Your task to perform on an android device: Go to display settings Image 0: 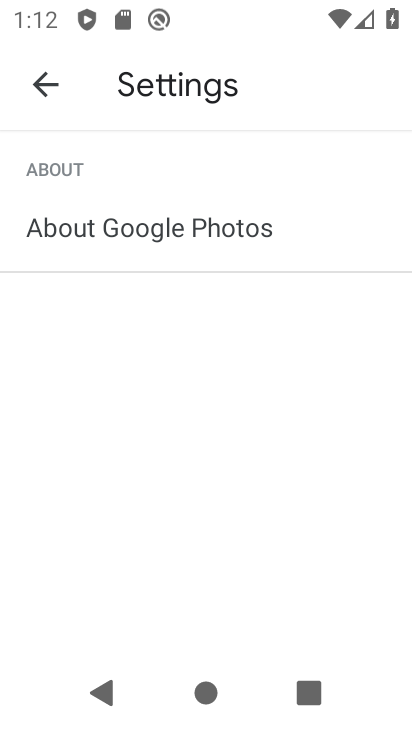
Step 0: press home button
Your task to perform on an android device: Go to display settings Image 1: 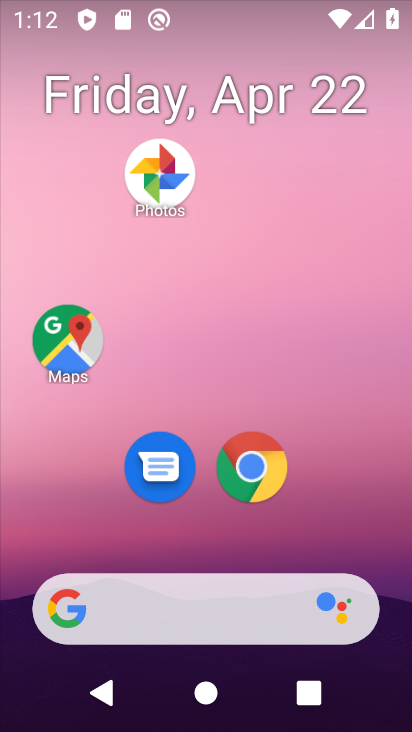
Step 1: drag from (213, 547) to (265, 44)
Your task to perform on an android device: Go to display settings Image 2: 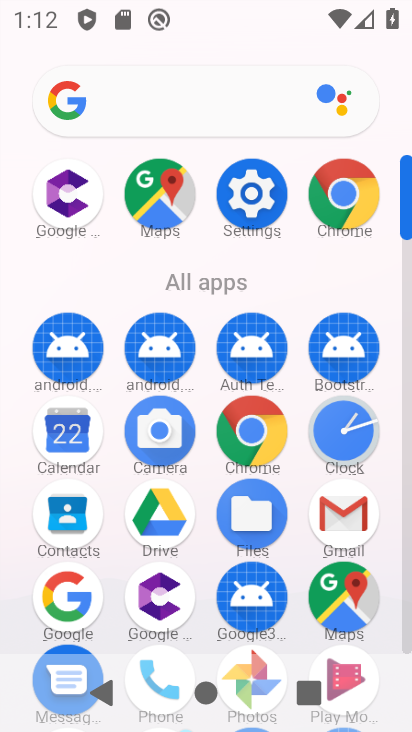
Step 2: click (246, 184)
Your task to perform on an android device: Go to display settings Image 3: 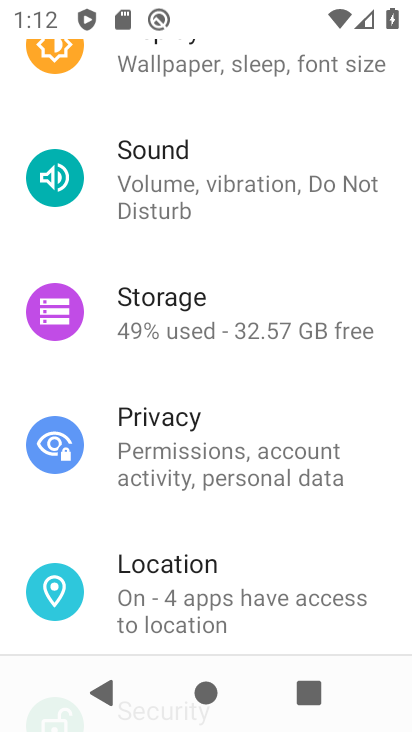
Step 3: click (177, 69)
Your task to perform on an android device: Go to display settings Image 4: 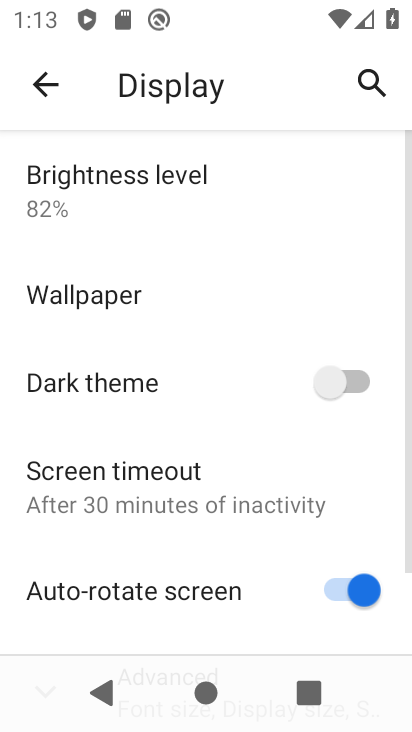
Step 4: drag from (179, 481) to (213, 110)
Your task to perform on an android device: Go to display settings Image 5: 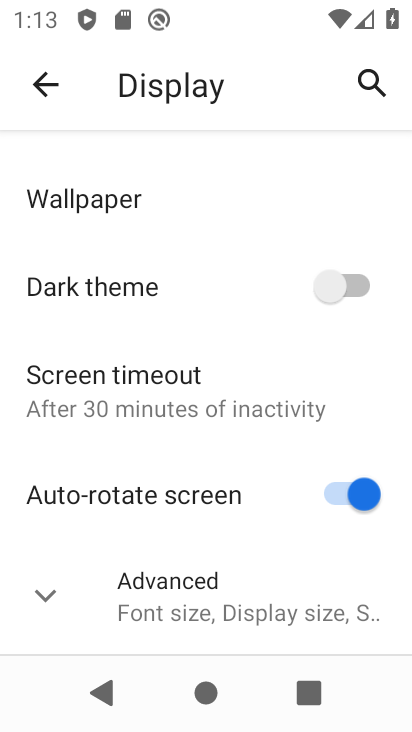
Step 5: click (46, 589)
Your task to perform on an android device: Go to display settings Image 6: 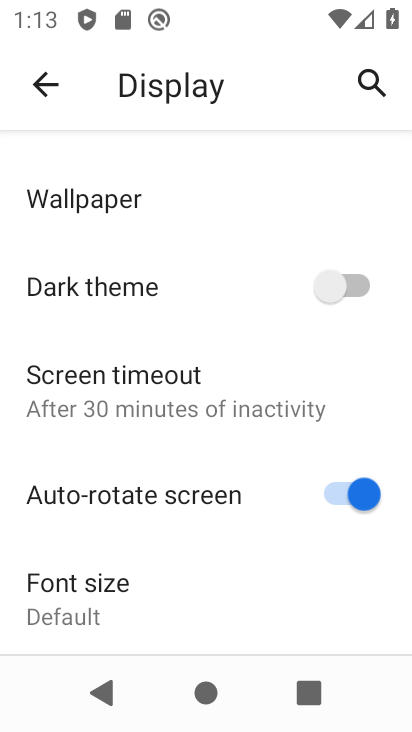
Step 6: task complete